Your task to perform on an android device: find which apps use the phone's location Image 0: 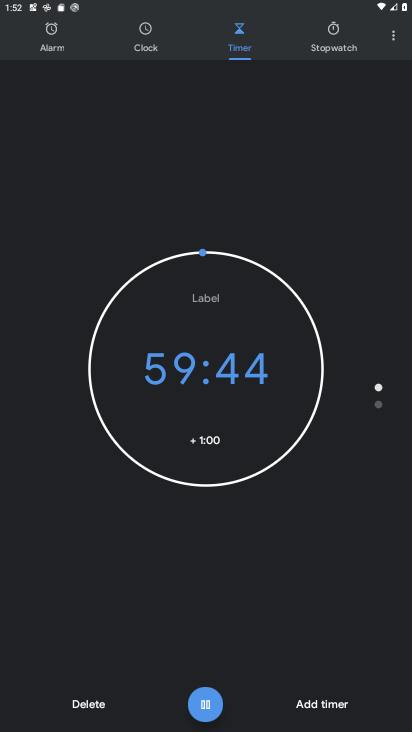
Step 0: press home button
Your task to perform on an android device: find which apps use the phone's location Image 1: 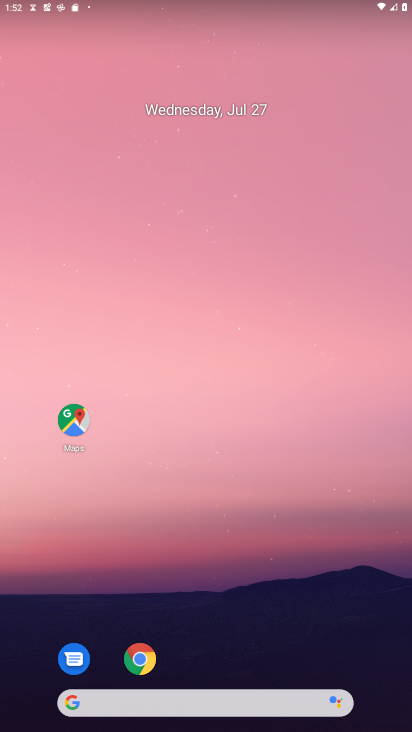
Step 1: drag from (19, 582) to (197, 124)
Your task to perform on an android device: find which apps use the phone's location Image 2: 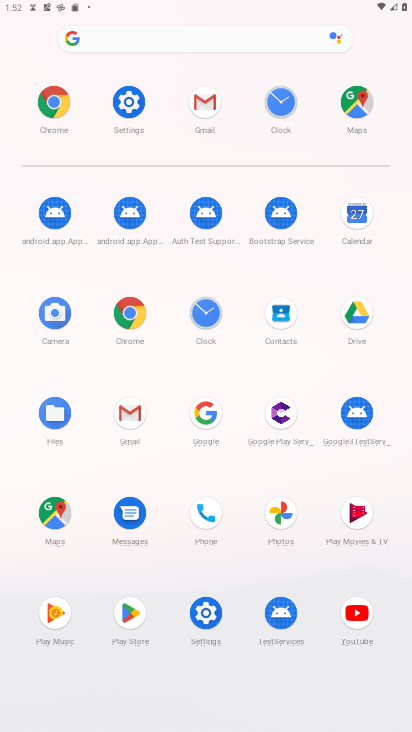
Step 2: click (223, 512)
Your task to perform on an android device: find which apps use the phone's location Image 3: 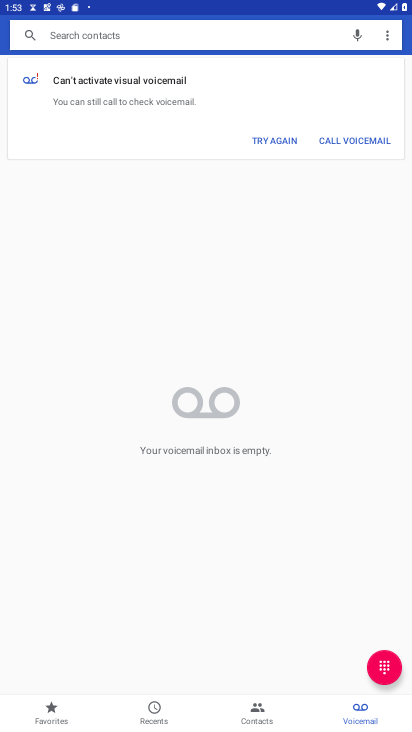
Step 3: task complete